Your task to perform on an android device: Go to privacy settings Image 0: 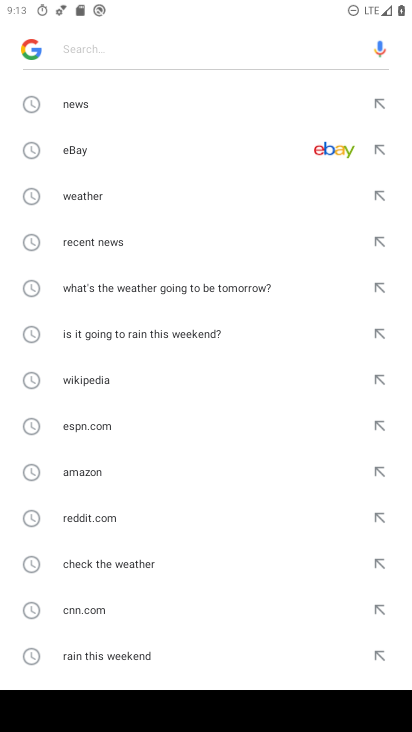
Step 0: drag from (157, 585) to (298, 142)
Your task to perform on an android device: Go to privacy settings Image 1: 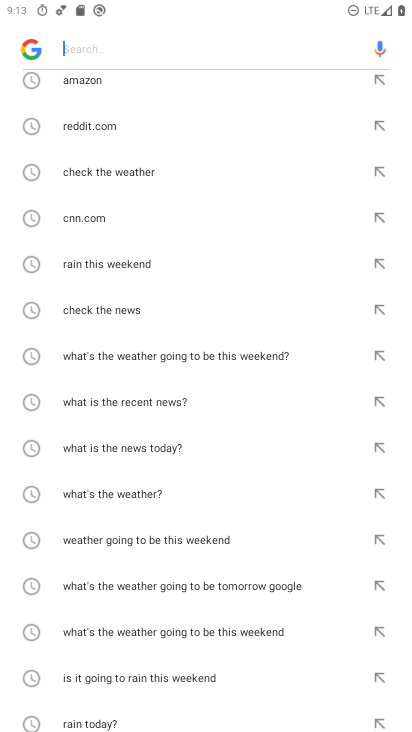
Step 1: press home button
Your task to perform on an android device: Go to privacy settings Image 2: 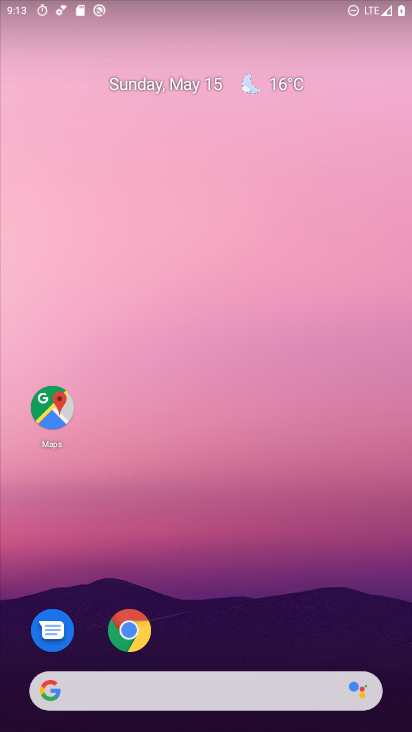
Step 2: drag from (198, 649) to (256, 316)
Your task to perform on an android device: Go to privacy settings Image 3: 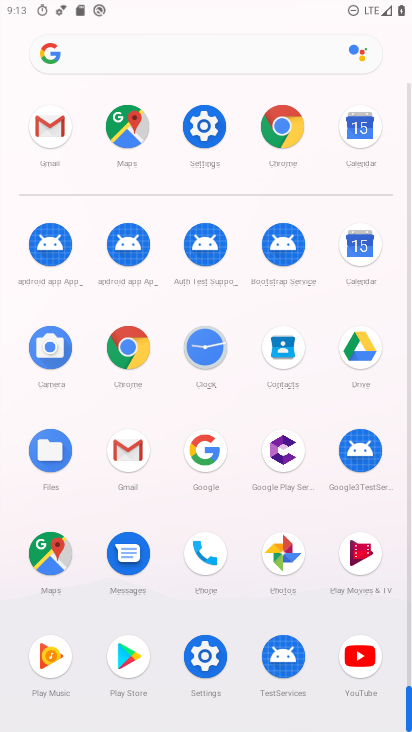
Step 3: click (197, 113)
Your task to perform on an android device: Go to privacy settings Image 4: 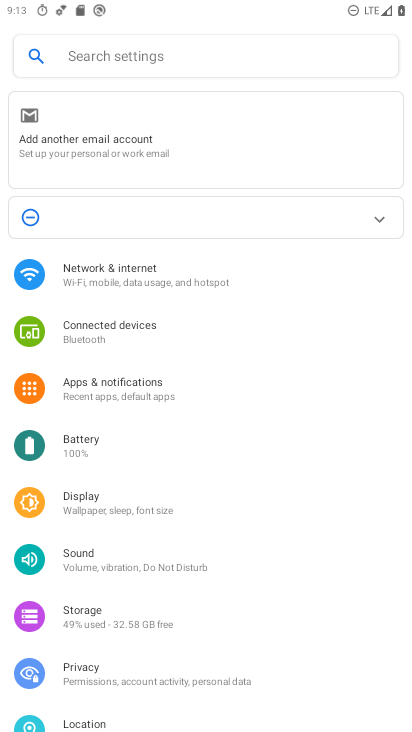
Step 4: drag from (237, 664) to (211, 58)
Your task to perform on an android device: Go to privacy settings Image 5: 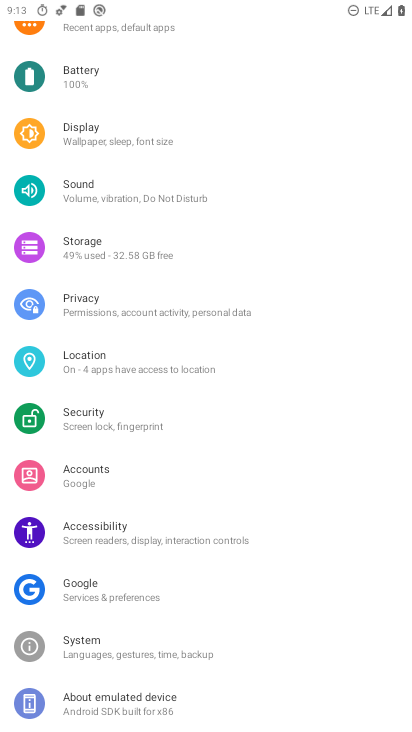
Step 5: click (128, 308)
Your task to perform on an android device: Go to privacy settings Image 6: 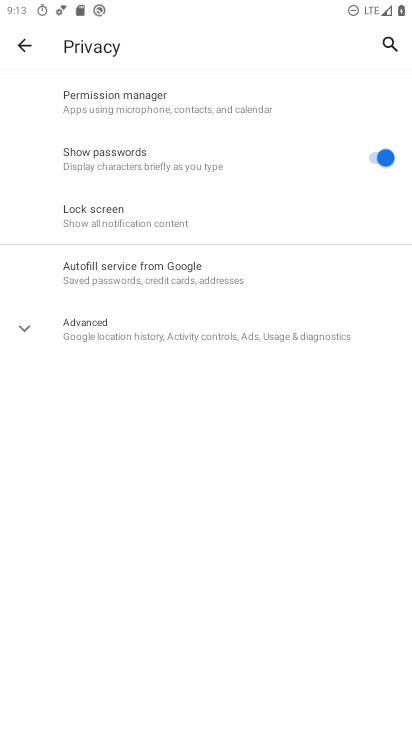
Step 6: click (147, 341)
Your task to perform on an android device: Go to privacy settings Image 7: 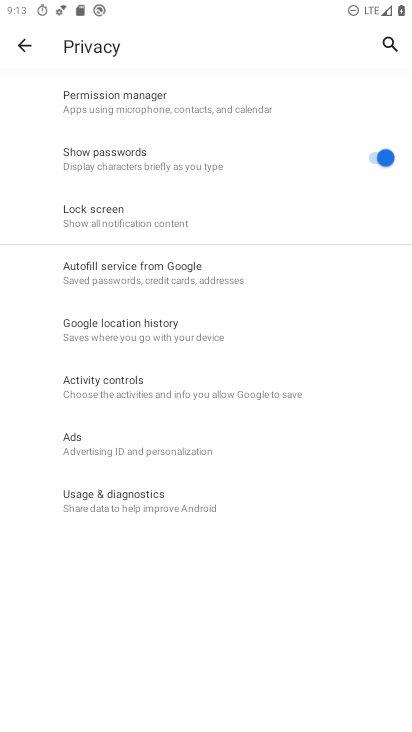
Step 7: task complete